Your task to perform on an android device: open chrome privacy settings Image 0: 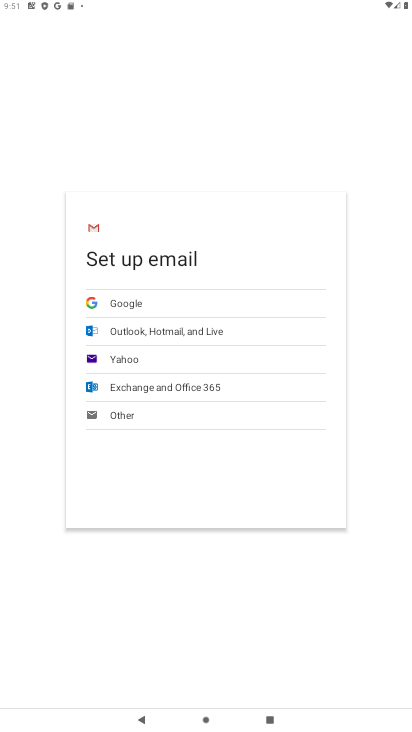
Step 0: press home button
Your task to perform on an android device: open chrome privacy settings Image 1: 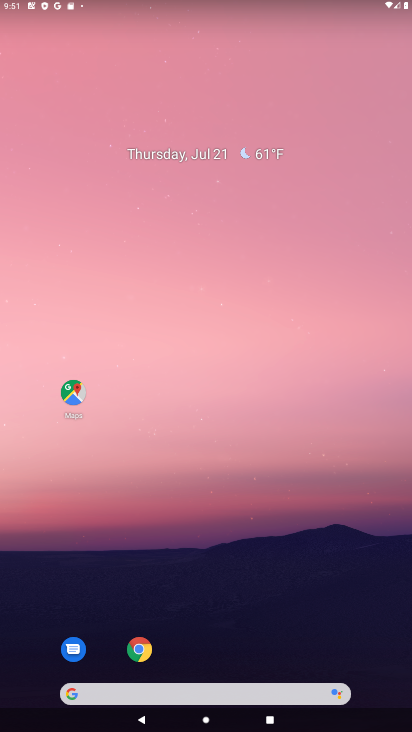
Step 1: click (138, 649)
Your task to perform on an android device: open chrome privacy settings Image 2: 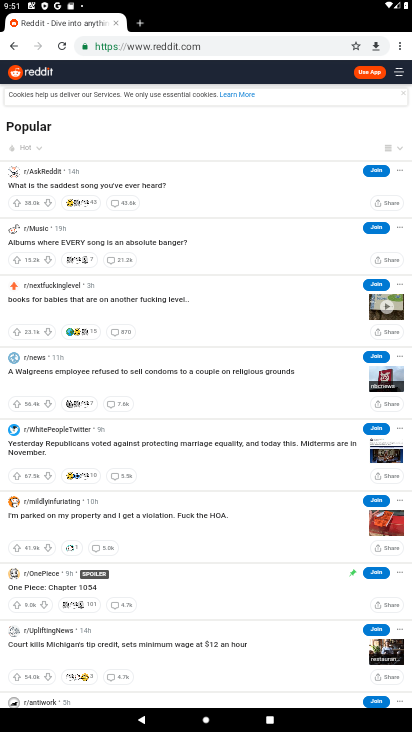
Step 2: click (398, 46)
Your task to perform on an android device: open chrome privacy settings Image 3: 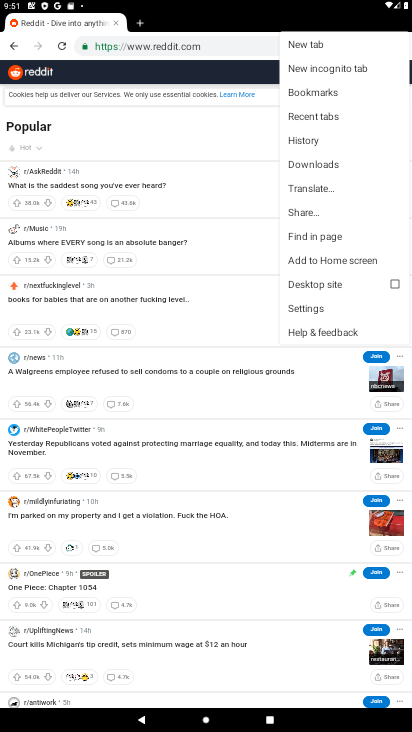
Step 3: click (314, 308)
Your task to perform on an android device: open chrome privacy settings Image 4: 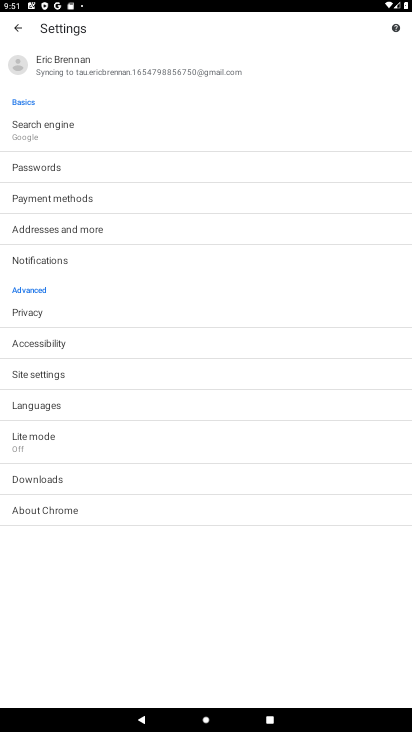
Step 4: click (32, 313)
Your task to perform on an android device: open chrome privacy settings Image 5: 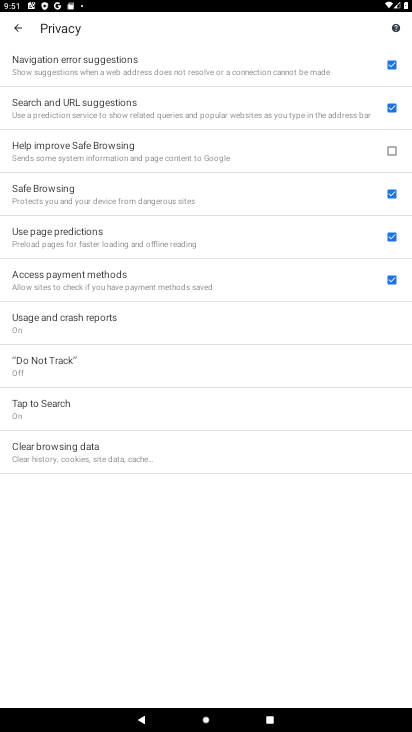
Step 5: task complete